Your task to perform on an android device: What is the news today? Image 0: 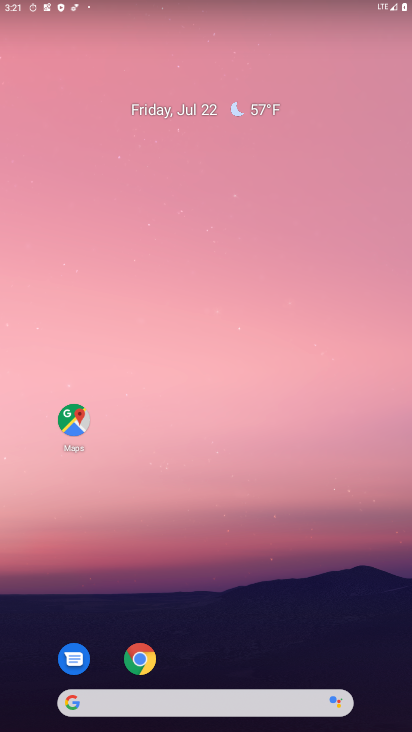
Step 0: click (235, 698)
Your task to perform on an android device: What is the news today? Image 1: 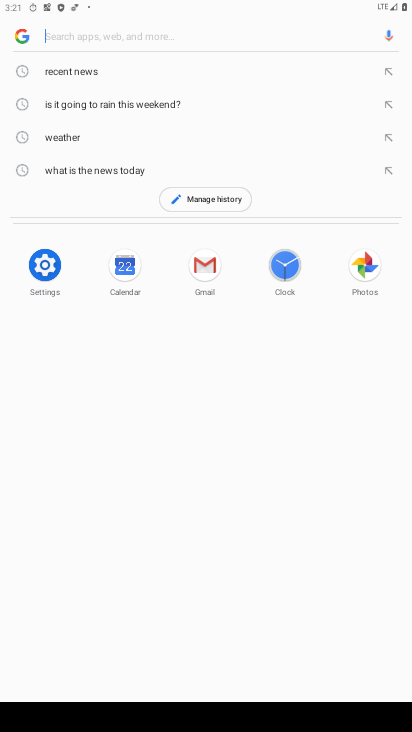
Step 1: type "what is the news today"
Your task to perform on an android device: What is the news today? Image 2: 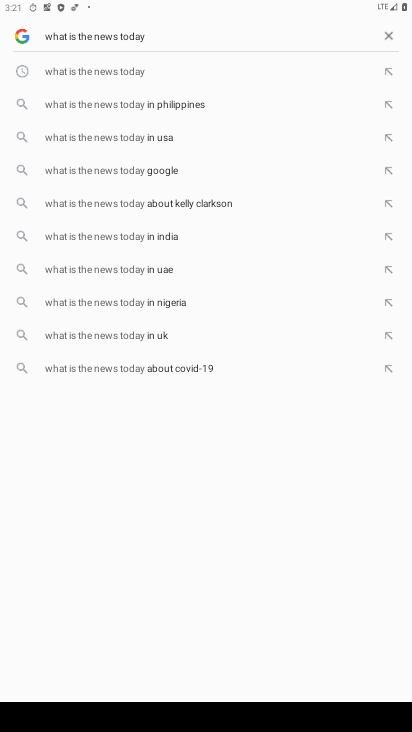
Step 2: click (165, 71)
Your task to perform on an android device: What is the news today? Image 3: 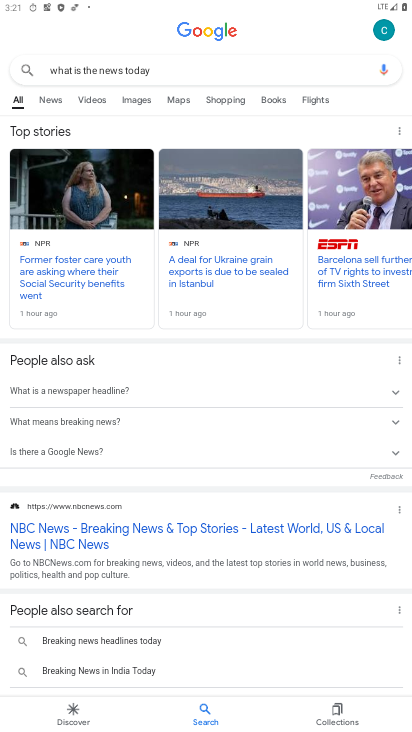
Step 3: click (55, 96)
Your task to perform on an android device: What is the news today? Image 4: 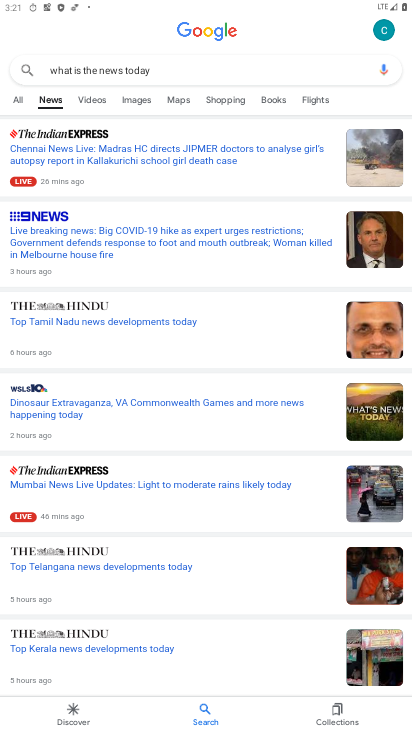
Step 4: task complete